Your task to perform on an android device: Open ESPN.com Image 0: 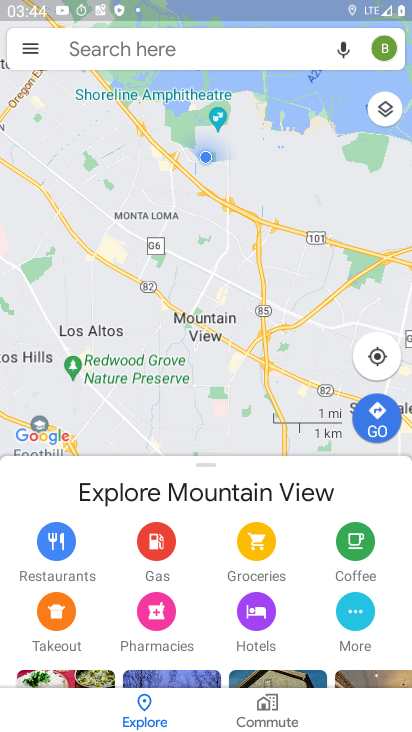
Step 0: press back button
Your task to perform on an android device: Open ESPN.com Image 1: 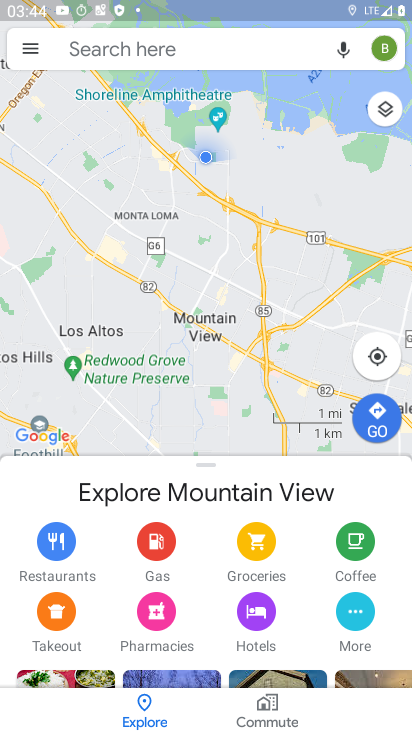
Step 1: press back button
Your task to perform on an android device: Open ESPN.com Image 2: 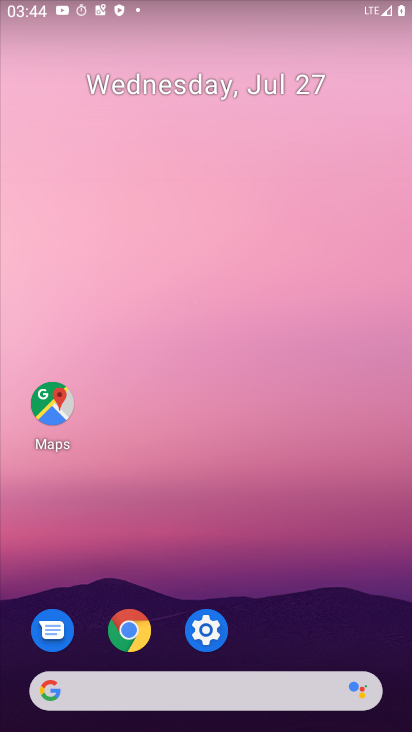
Step 2: press back button
Your task to perform on an android device: Open ESPN.com Image 3: 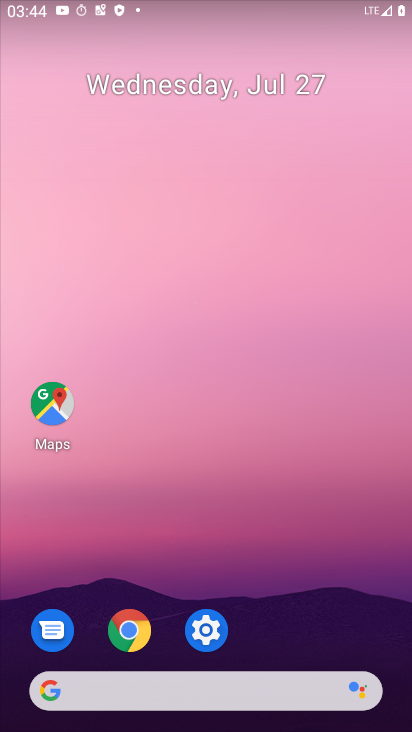
Step 3: drag from (205, 521) to (157, 76)
Your task to perform on an android device: Open ESPN.com Image 4: 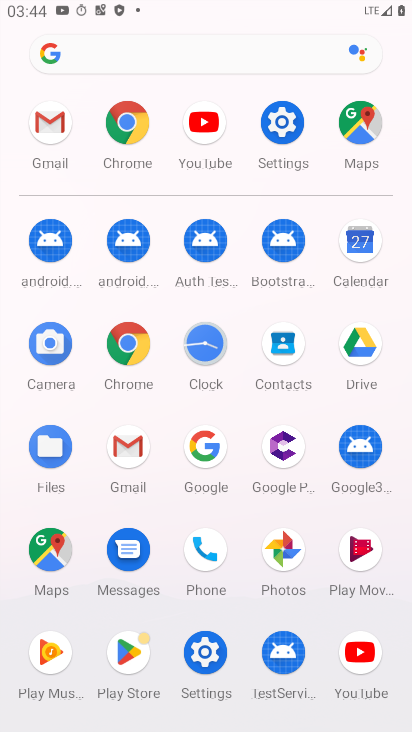
Step 4: click (125, 111)
Your task to perform on an android device: Open ESPN.com Image 5: 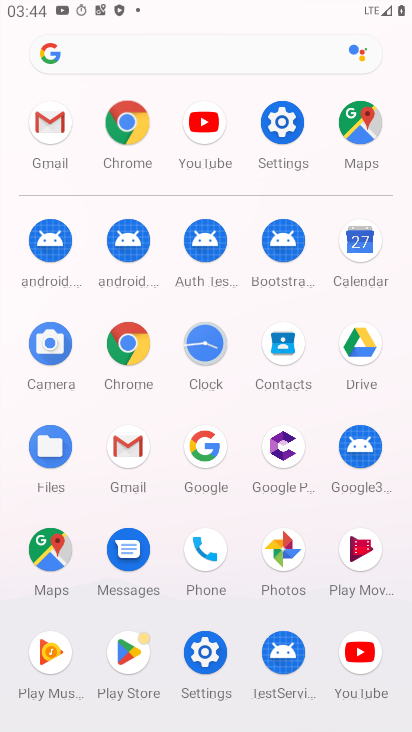
Step 5: click (125, 111)
Your task to perform on an android device: Open ESPN.com Image 6: 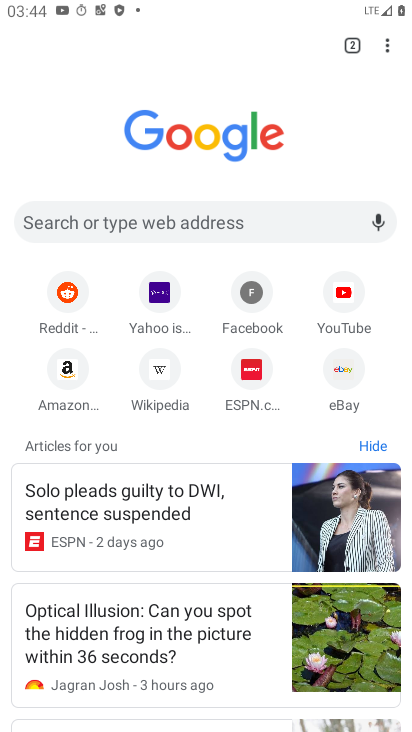
Step 6: click (259, 376)
Your task to perform on an android device: Open ESPN.com Image 7: 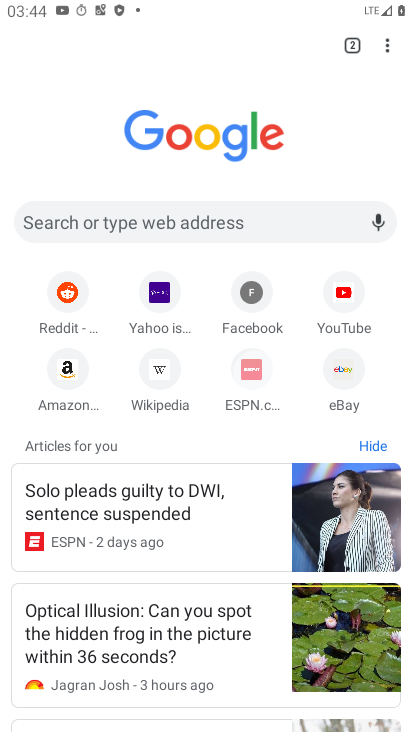
Step 7: click (258, 375)
Your task to perform on an android device: Open ESPN.com Image 8: 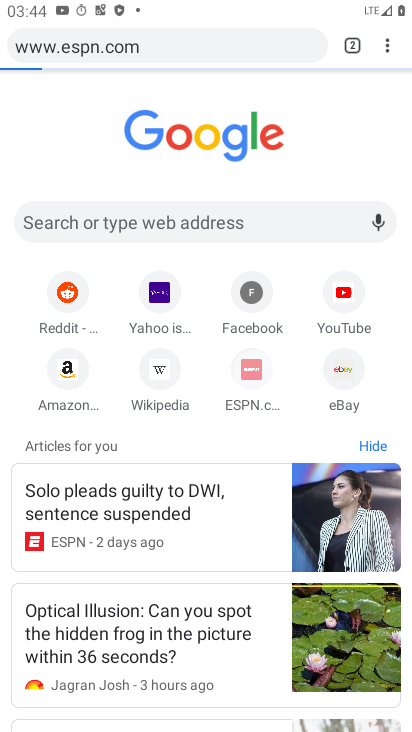
Step 8: click (263, 370)
Your task to perform on an android device: Open ESPN.com Image 9: 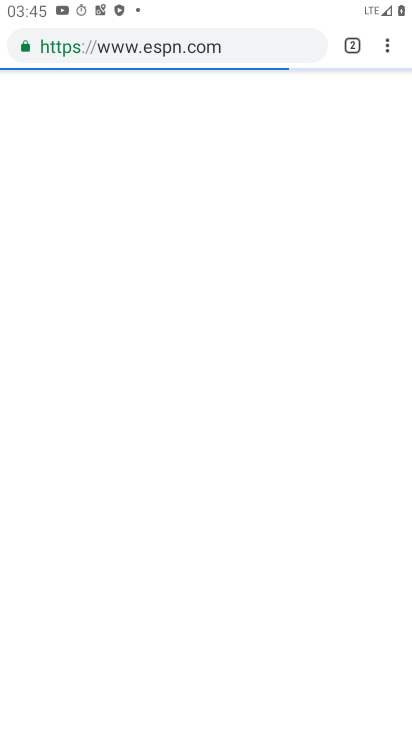
Step 9: task complete